Your task to perform on an android device: open wifi settings Image 0: 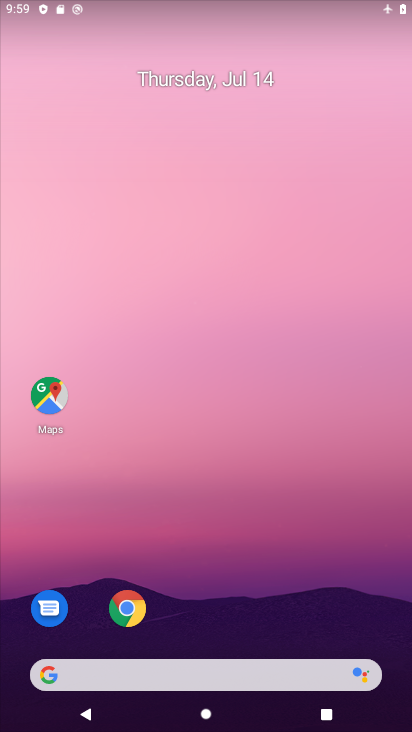
Step 0: click (241, 7)
Your task to perform on an android device: open wifi settings Image 1: 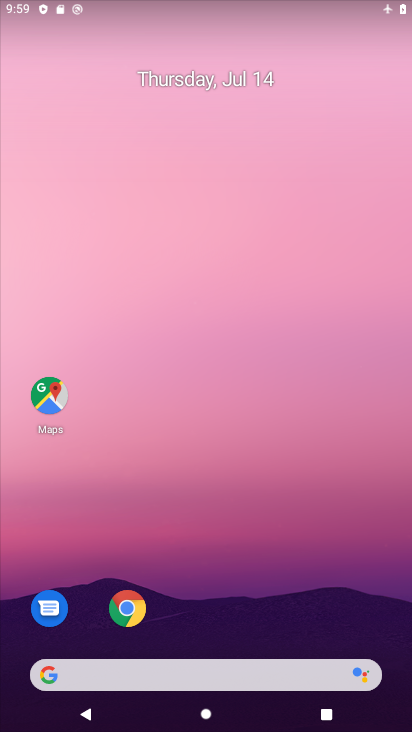
Step 1: drag from (195, 14) to (244, 4)
Your task to perform on an android device: open wifi settings Image 2: 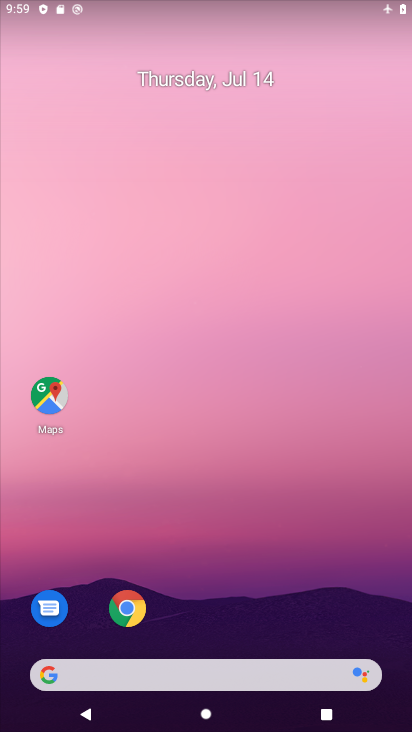
Step 2: drag from (253, 615) to (227, 30)
Your task to perform on an android device: open wifi settings Image 3: 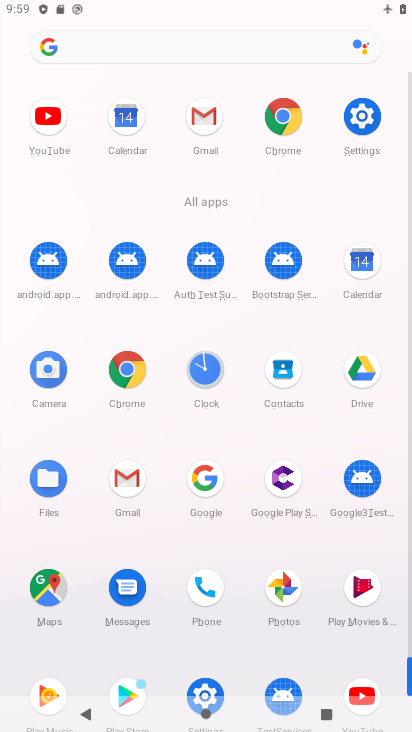
Step 3: click (369, 124)
Your task to perform on an android device: open wifi settings Image 4: 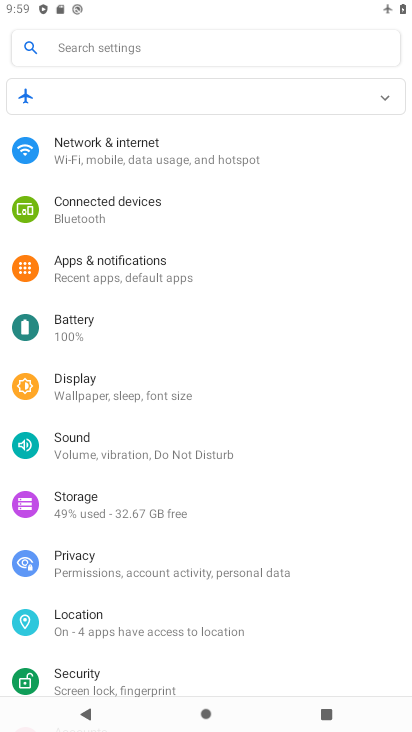
Step 4: click (119, 157)
Your task to perform on an android device: open wifi settings Image 5: 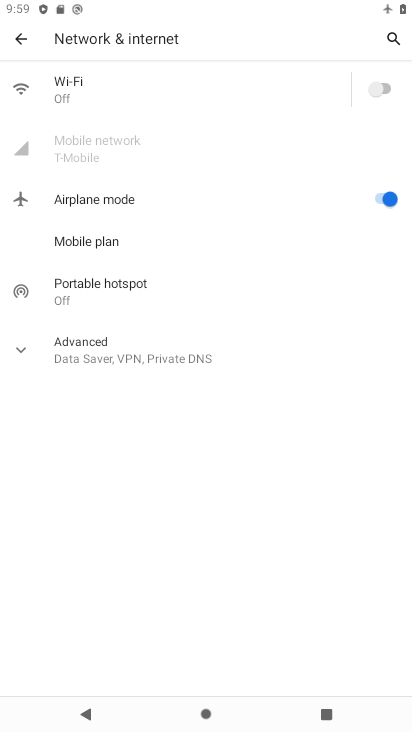
Step 5: click (98, 85)
Your task to perform on an android device: open wifi settings Image 6: 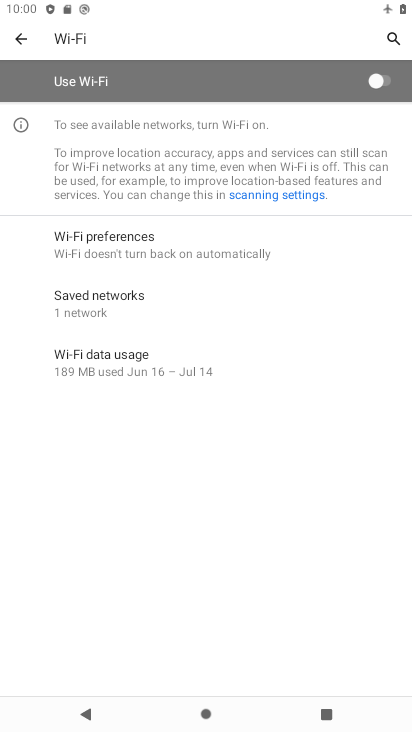
Step 6: task complete